Your task to perform on an android device: Find coffee shops on Maps Image 0: 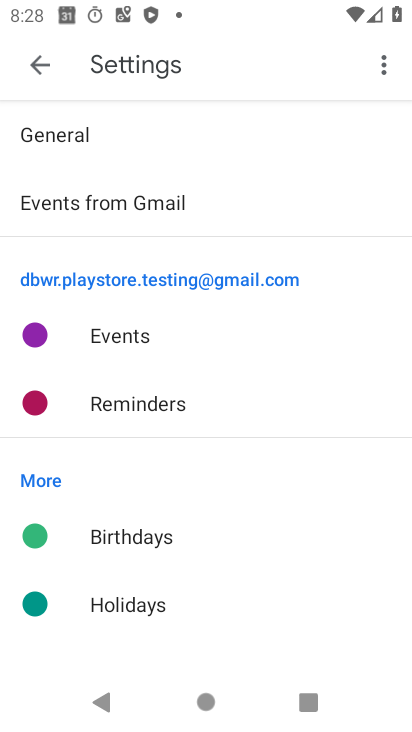
Step 0: press home button
Your task to perform on an android device: Find coffee shops on Maps Image 1: 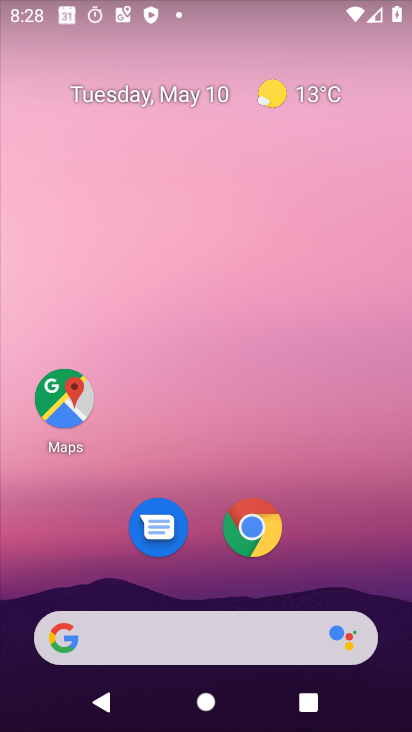
Step 1: click (55, 399)
Your task to perform on an android device: Find coffee shops on Maps Image 2: 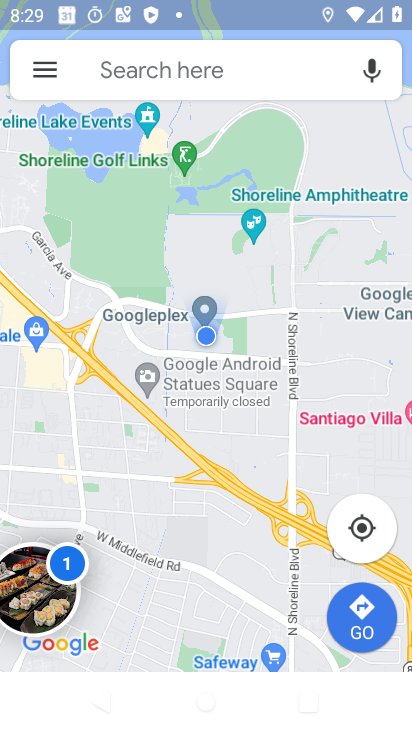
Step 2: click (180, 51)
Your task to perform on an android device: Find coffee shops on Maps Image 3: 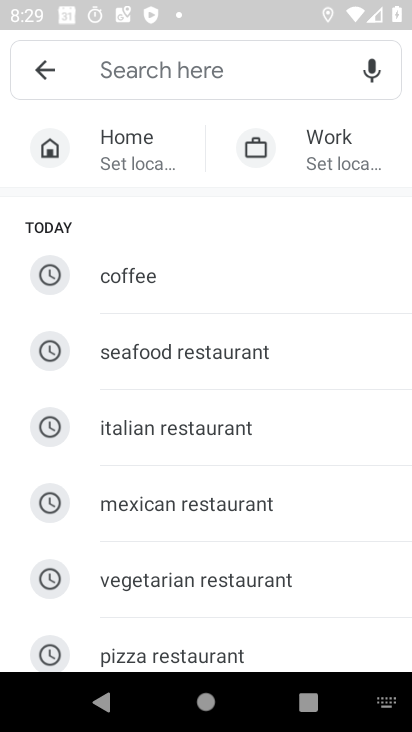
Step 3: click (130, 290)
Your task to perform on an android device: Find coffee shops on Maps Image 4: 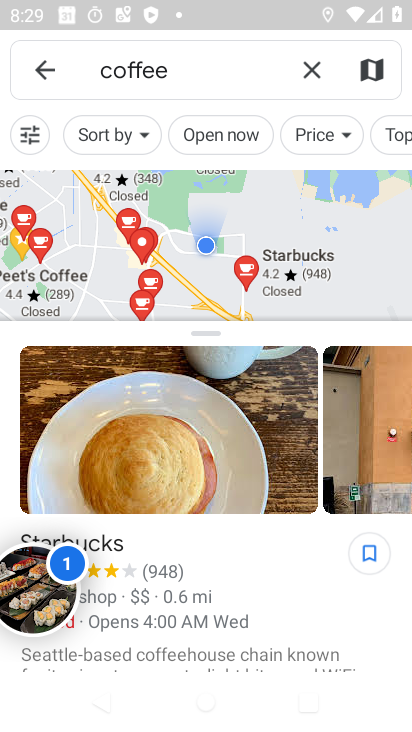
Step 4: task complete